Your task to perform on an android device: create a new album in the google photos Image 0: 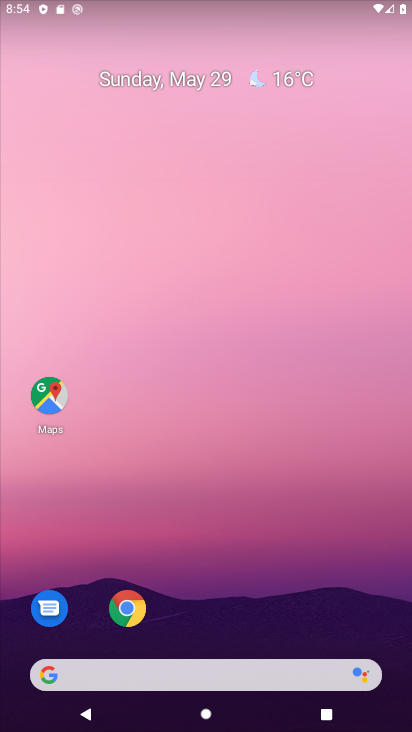
Step 0: click (178, 157)
Your task to perform on an android device: create a new album in the google photos Image 1: 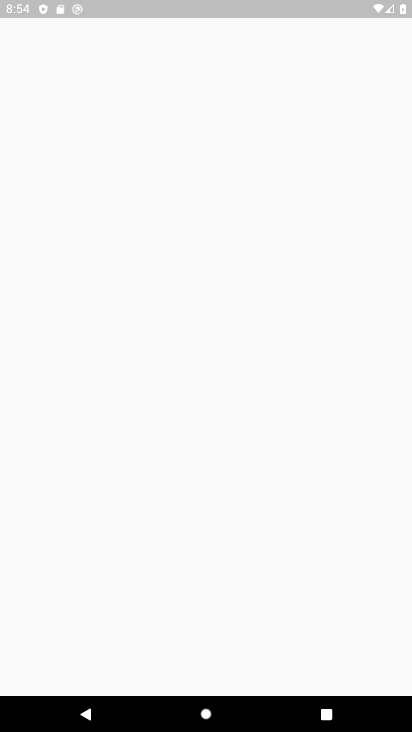
Step 1: press home button
Your task to perform on an android device: create a new album in the google photos Image 2: 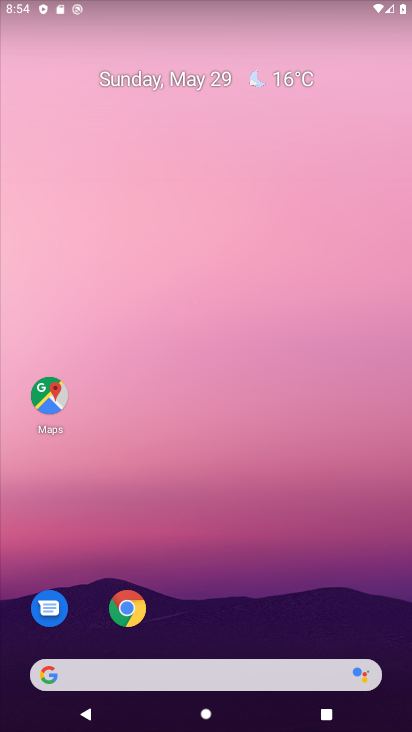
Step 2: drag from (221, 581) to (160, 4)
Your task to perform on an android device: create a new album in the google photos Image 3: 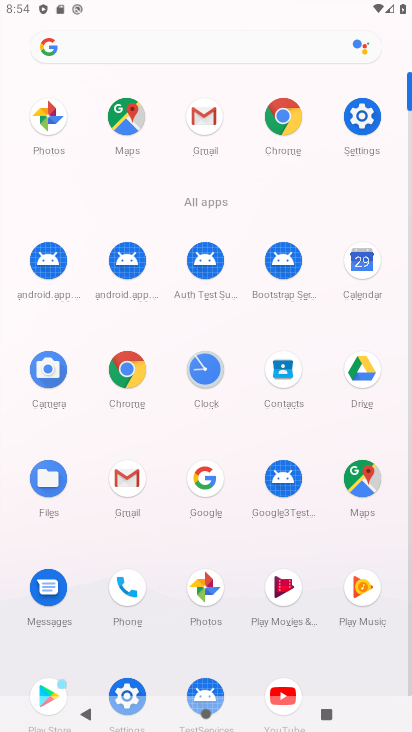
Step 3: click (53, 138)
Your task to perform on an android device: create a new album in the google photos Image 4: 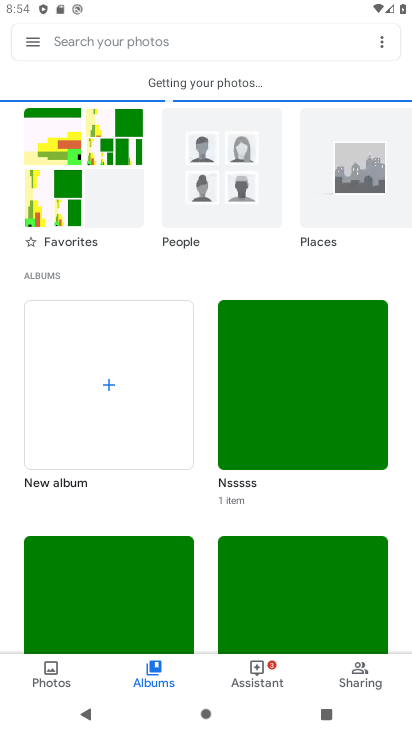
Step 4: click (104, 397)
Your task to perform on an android device: create a new album in the google photos Image 5: 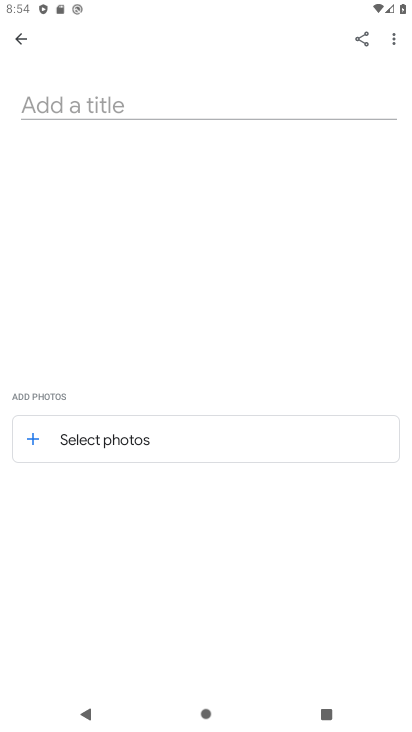
Step 5: click (144, 97)
Your task to perform on an android device: create a new album in the google photos Image 6: 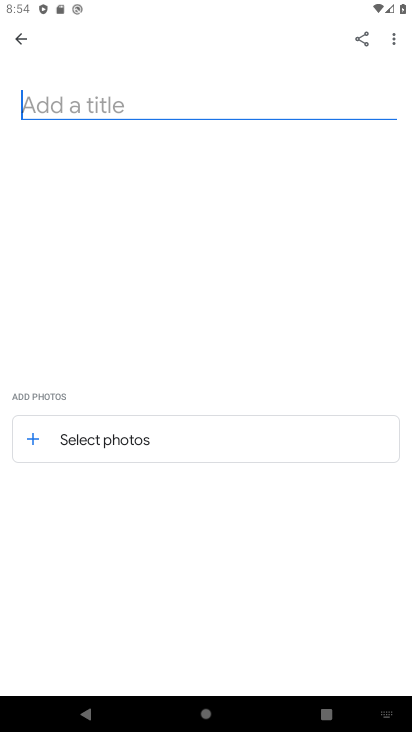
Step 6: type "Aruna"
Your task to perform on an android device: create a new album in the google photos Image 7: 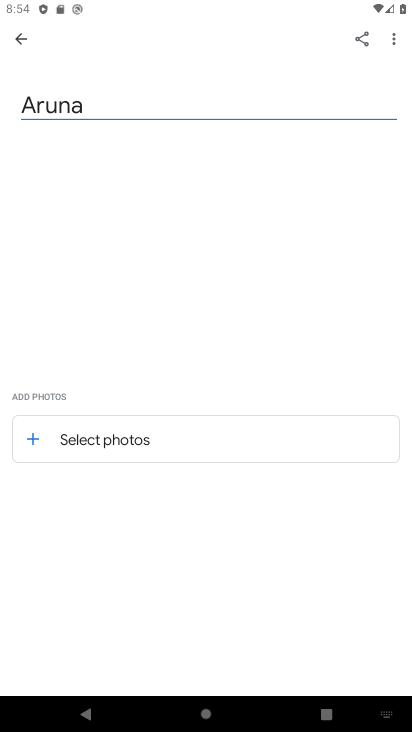
Step 7: click (134, 428)
Your task to perform on an android device: create a new album in the google photos Image 8: 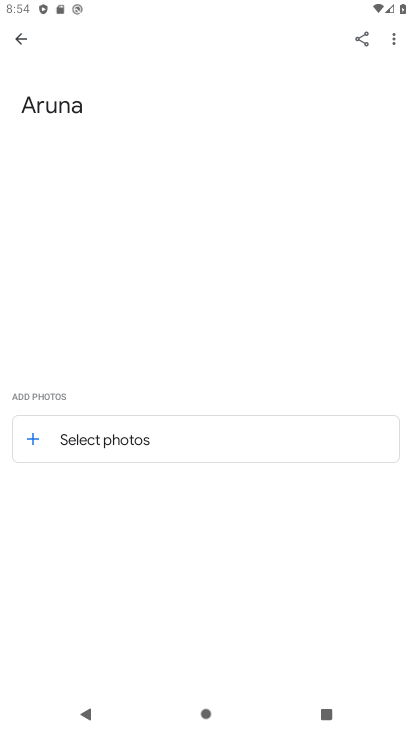
Step 8: click (42, 438)
Your task to perform on an android device: create a new album in the google photos Image 9: 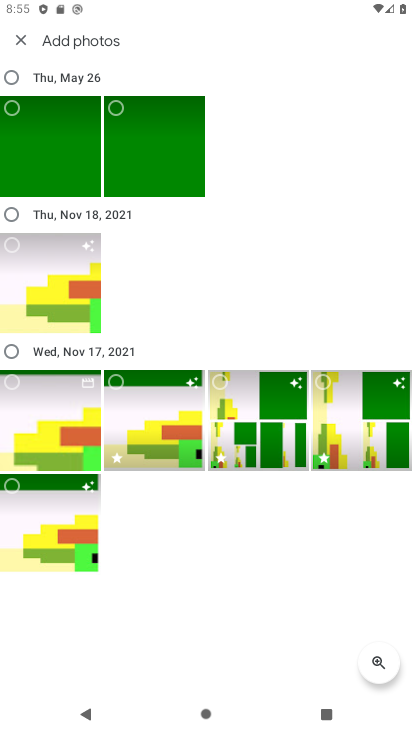
Step 9: click (14, 80)
Your task to perform on an android device: create a new album in the google photos Image 10: 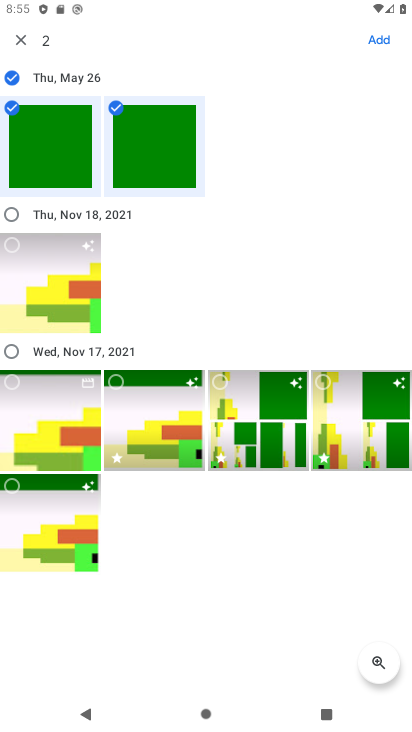
Step 10: click (387, 40)
Your task to perform on an android device: create a new album in the google photos Image 11: 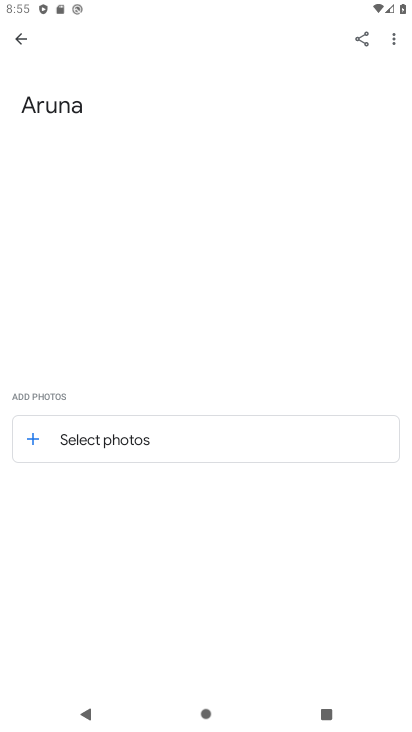
Step 11: task complete